Your task to perform on an android device: turn off javascript in the chrome app Image 0: 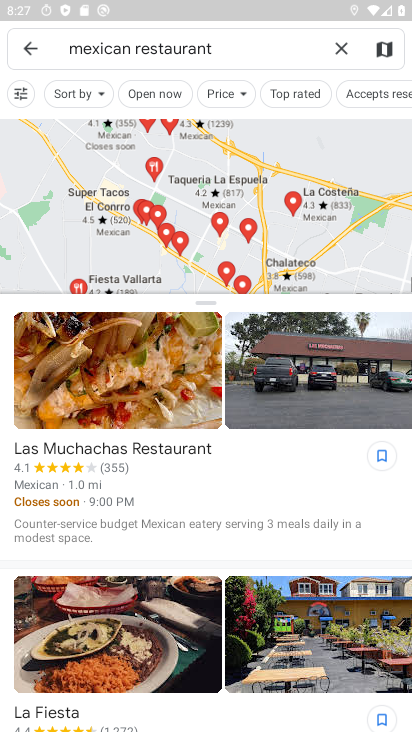
Step 0: press home button
Your task to perform on an android device: turn off javascript in the chrome app Image 1: 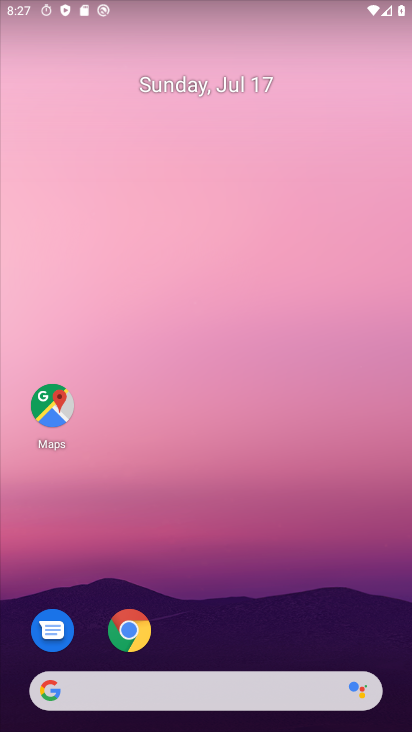
Step 1: click (130, 620)
Your task to perform on an android device: turn off javascript in the chrome app Image 2: 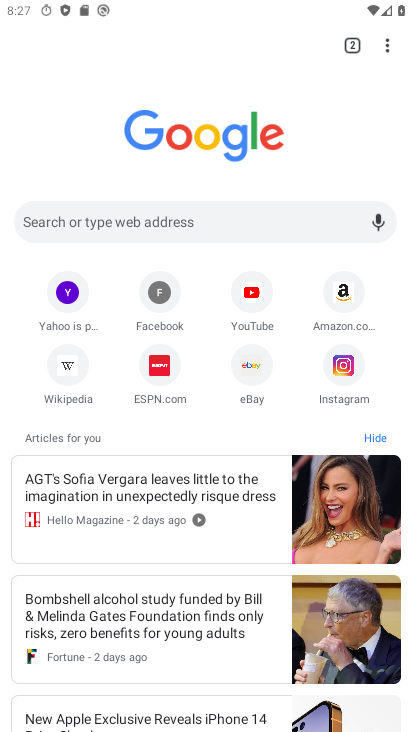
Step 2: click (388, 48)
Your task to perform on an android device: turn off javascript in the chrome app Image 3: 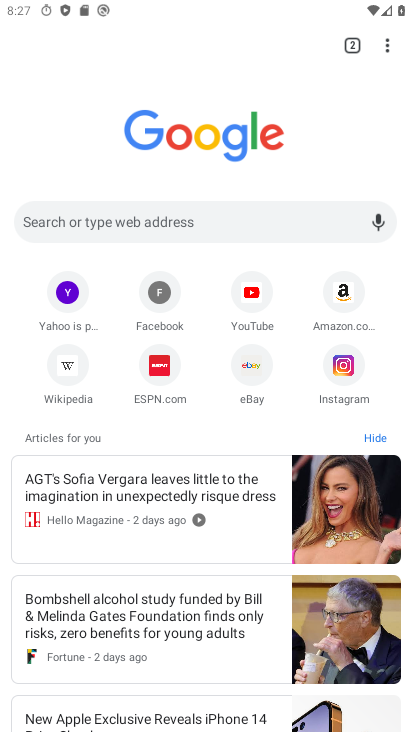
Step 3: click (380, 37)
Your task to perform on an android device: turn off javascript in the chrome app Image 4: 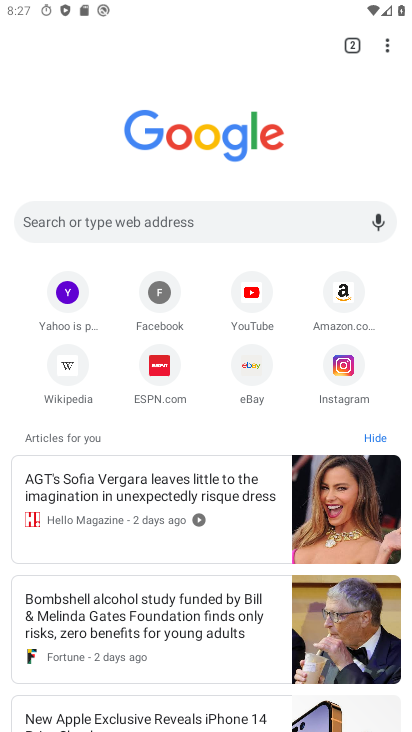
Step 4: click (387, 44)
Your task to perform on an android device: turn off javascript in the chrome app Image 5: 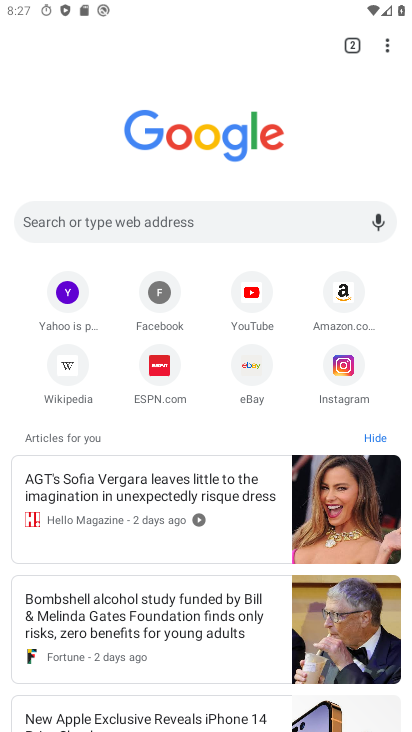
Step 5: click (388, 39)
Your task to perform on an android device: turn off javascript in the chrome app Image 6: 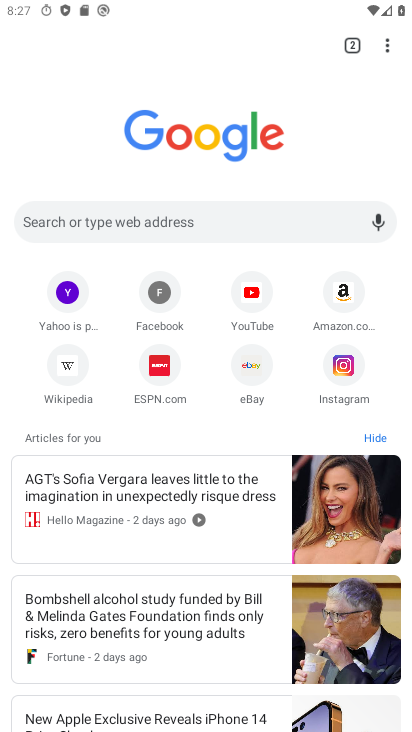
Step 6: click (394, 55)
Your task to perform on an android device: turn off javascript in the chrome app Image 7: 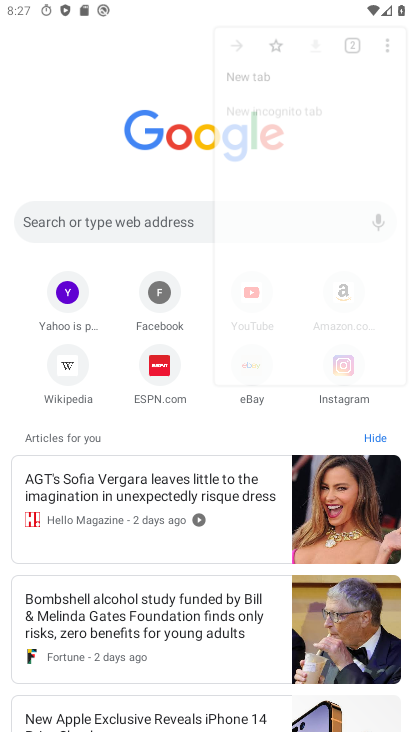
Step 7: click (390, 46)
Your task to perform on an android device: turn off javascript in the chrome app Image 8: 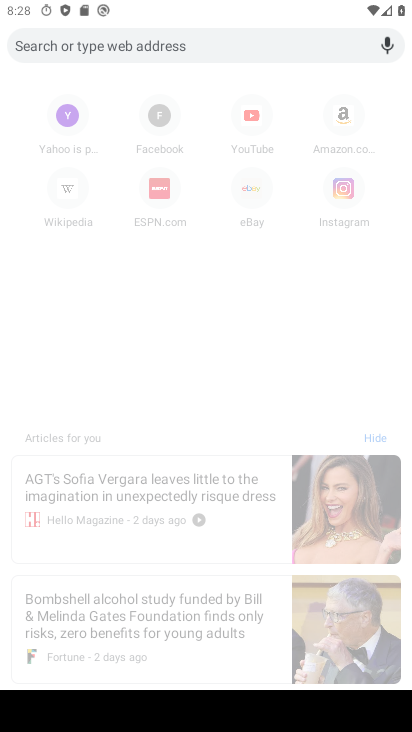
Step 8: task complete